Your task to perform on an android device: Open Amazon Image 0: 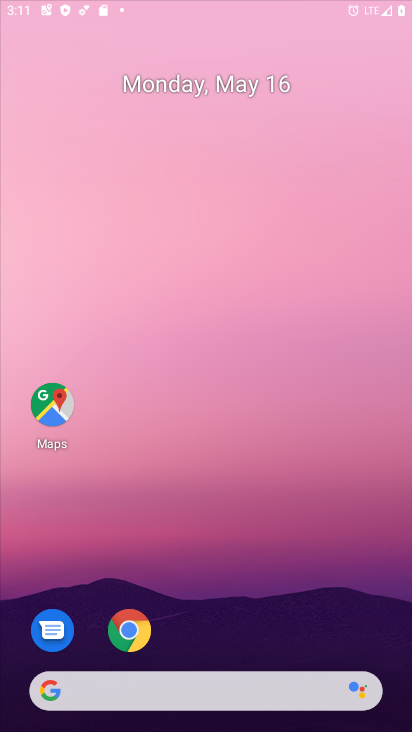
Step 0: press home button
Your task to perform on an android device: Open Amazon Image 1: 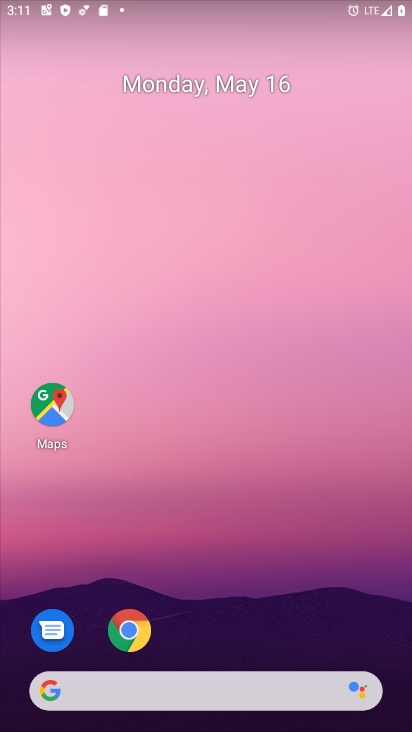
Step 1: click (131, 632)
Your task to perform on an android device: Open Amazon Image 2: 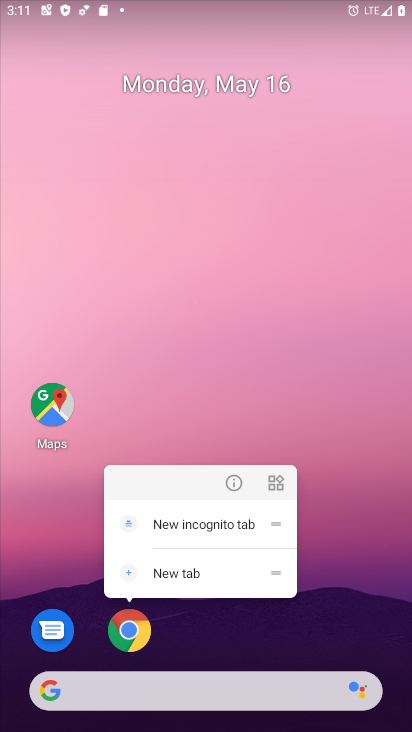
Step 2: click (127, 632)
Your task to perform on an android device: Open Amazon Image 3: 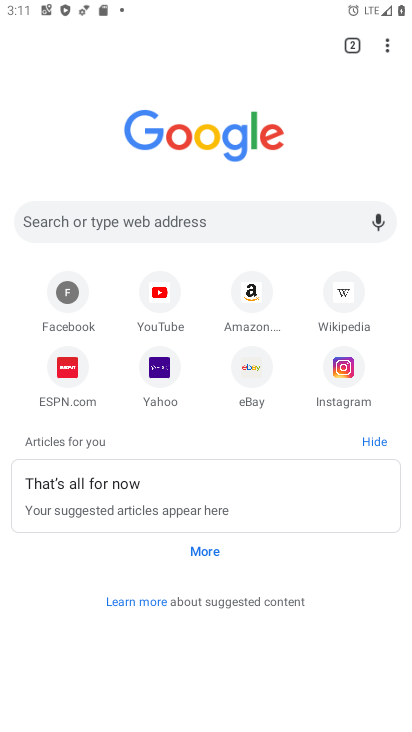
Step 3: click (256, 298)
Your task to perform on an android device: Open Amazon Image 4: 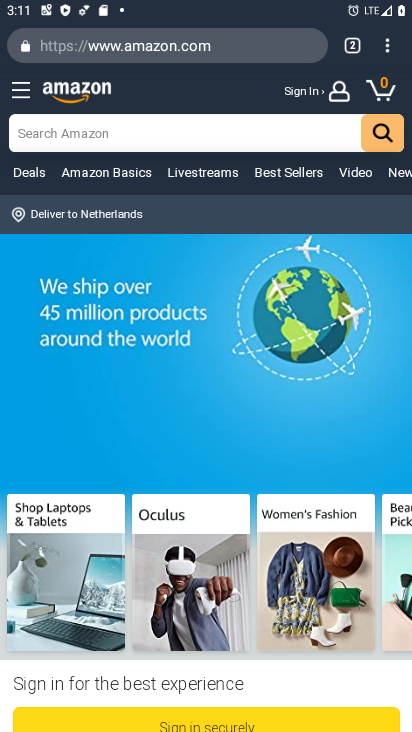
Step 4: task complete